Your task to perform on an android device: turn vacation reply on in the gmail app Image 0: 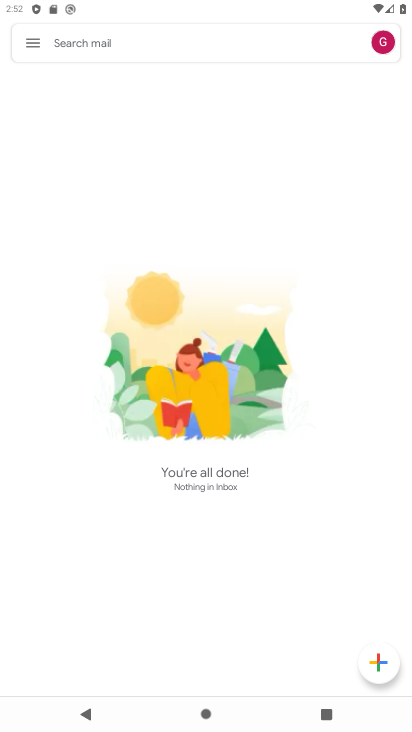
Step 0: press home button
Your task to perform on an android device: turn vacation reply on in the gmail app Image 1: 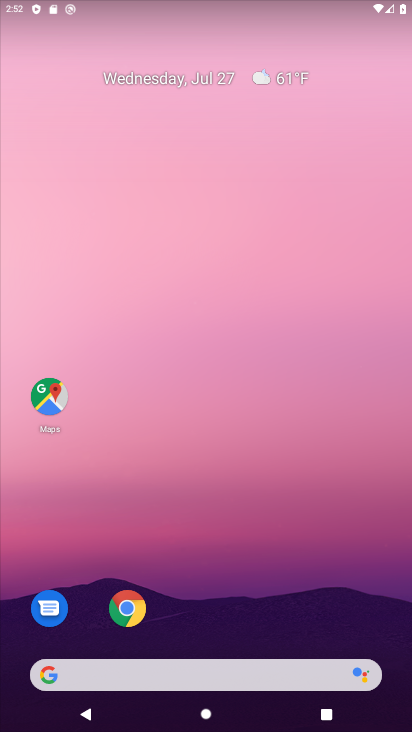
Step 1: drag from (260, 609) to (256, 101)
Your task to perform on an android device: turn vacation reply on in the gmail app Image 2: 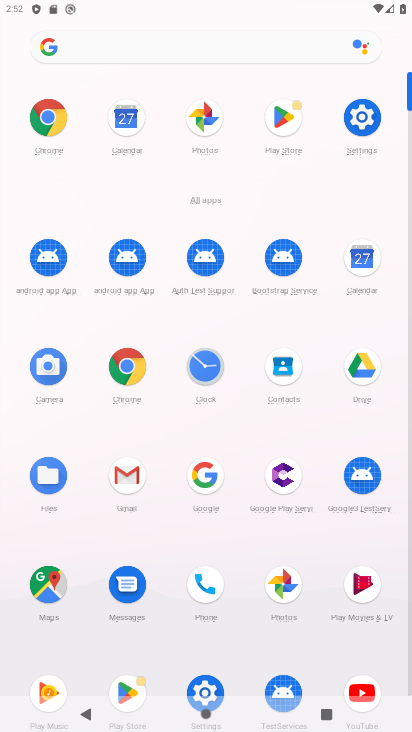
Step 2: click (122, 478)
Your task to perform on an android device: turn vacation reply on in the gmail app Image 3: 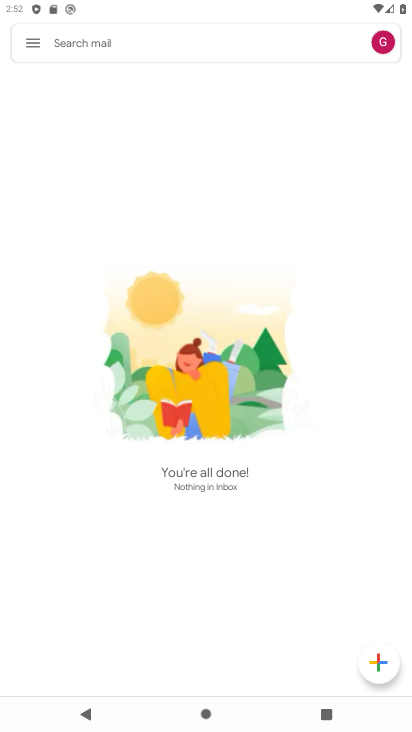
Step 3: click (37, 41)
Your task to perform on an android device: turn vacation reply on in the gmail app Image 4: 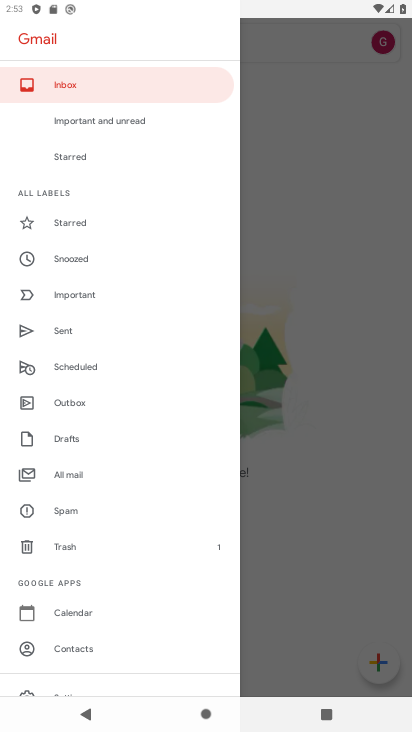
Step 4: click (82, 688)
Your task to perform on an android device: turn vacation reply on in the gmail app Image 5: 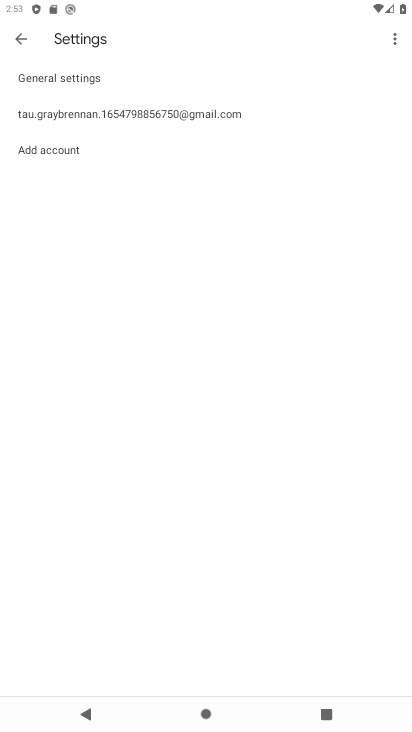
Step 5: click (227, 116)
Your task to perform on an android device: turn vacation reply on in the gmail app Image 6: 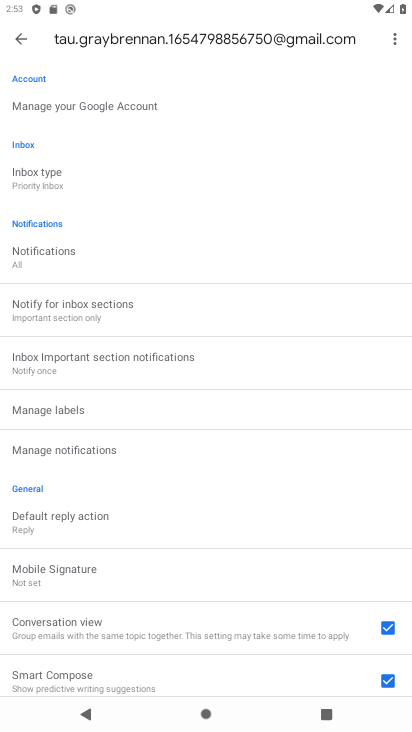
Step 6: drag from (170, 564) to (159, 110)
Your task to perform on an android device: turn vacation reply on in the gmail app Image 7: 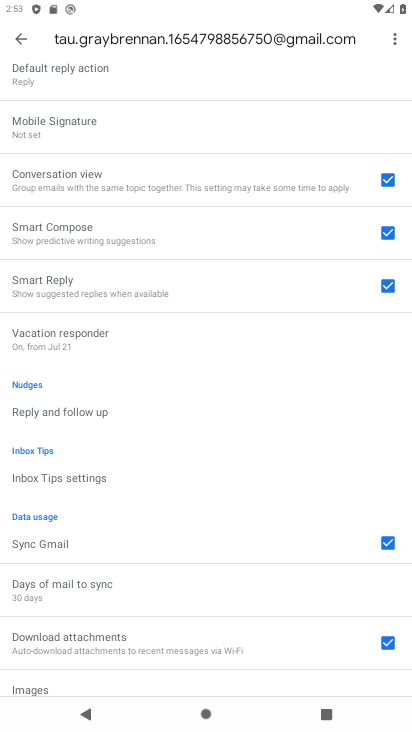
Step 7: click (138, 331)
Your task to perform on an android device: turn vacation reply on in the gmail app Image 8: 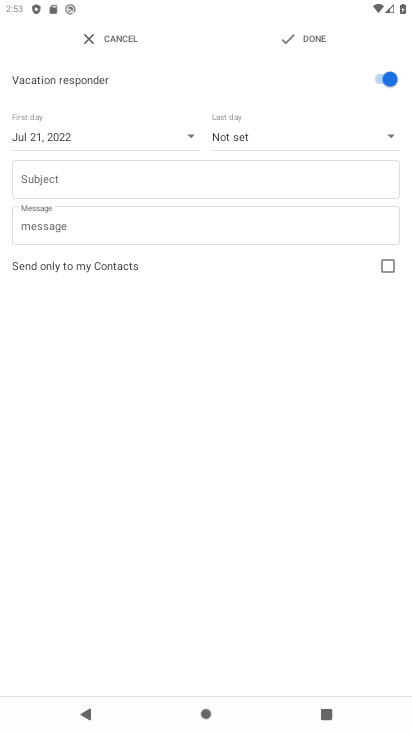
Step 8: click (296, 35)
Your task to perform on an android device: turn vacation reply on in the gmail app Image 9: 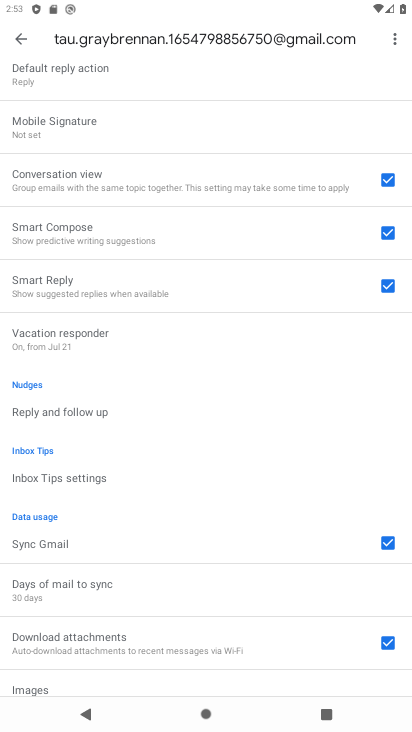
Step 9: task complete